Your task to perform on an android device: Open calendar and show me the third week of next month Image 0: 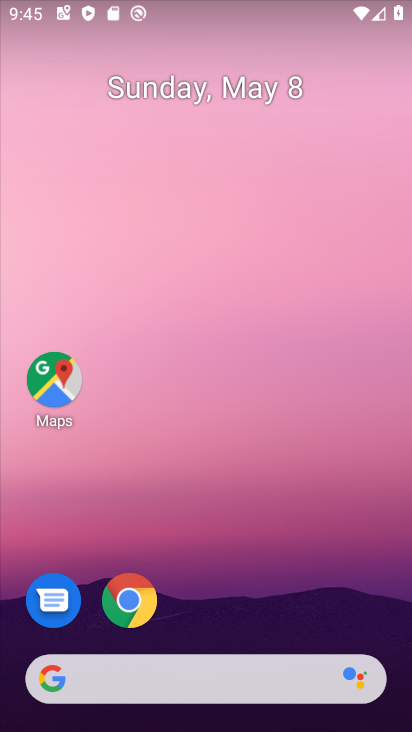
Step 0: drag from (143, 672) to (148, 135)
Your task to perform on an android device: Open calendar and show me the third week of next month Image 1: 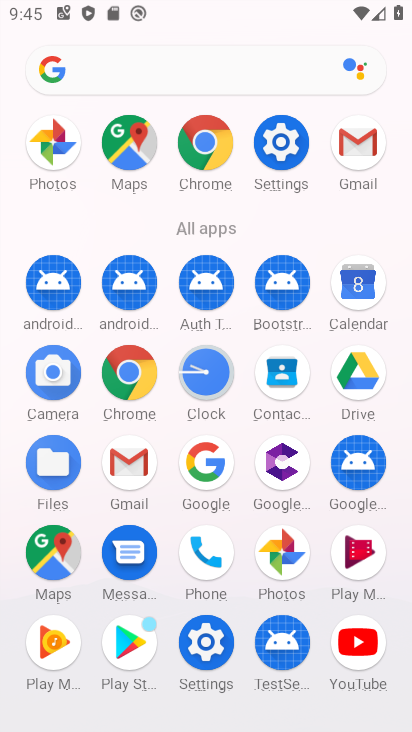
Step 1: click (367, 282)
Your task to perform on an android device: Open calendar and show me the third week of next month Image 2: 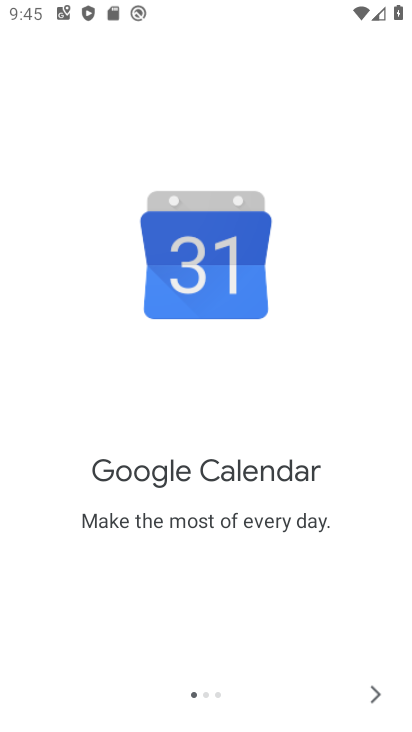
Step 2: click (375, 710)
Your task to perform on an android device: Open calendar and show me the third week of next month Image 3: 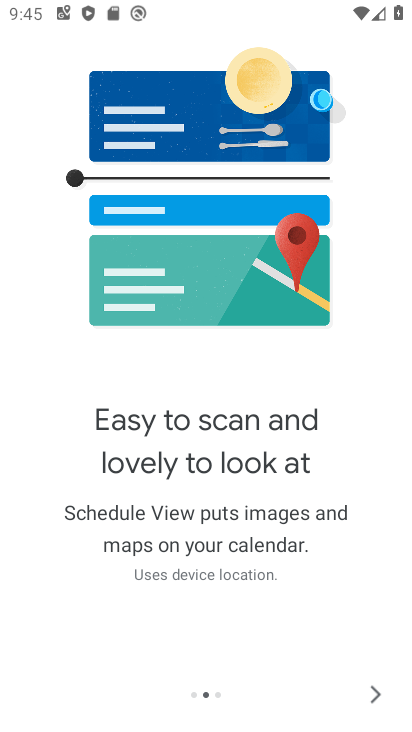
Step 3: click (370, 703)
Your task to perform on an android device: Open calendar and show me the third week of next month Image 4: 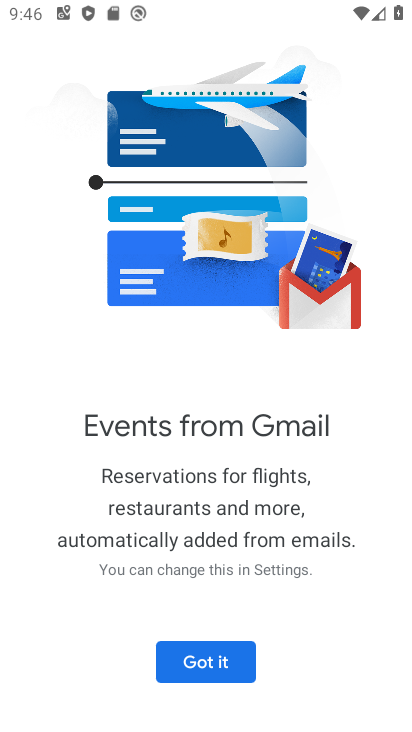
Step 4: click (169, 673)
Your task to perform on an android device: Open calendar and show me the third week of next month Image 5: 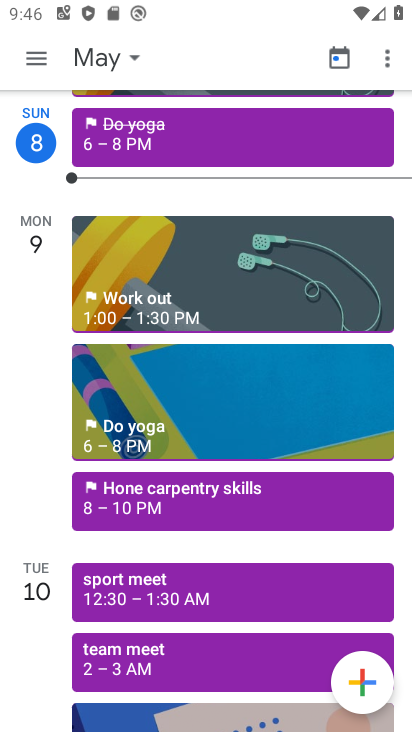
Step 5: click (41, 58)
Your task to perform on an android device: Open calendar and show me the third week of next month Image 6: 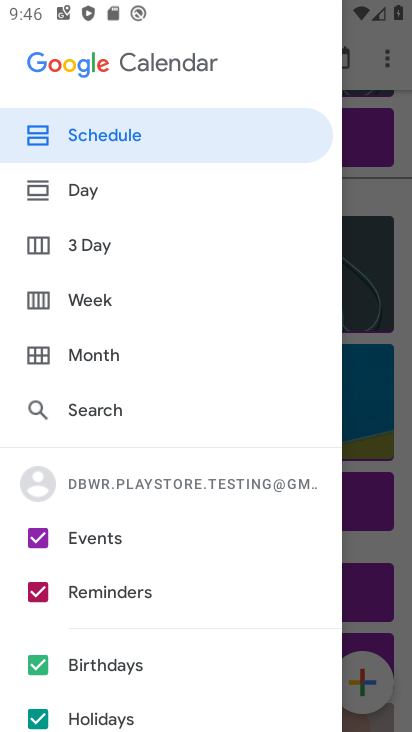
Step 6: click (93, 354)
Your task to perform on an android device: Open calendar and show me the third week of next month Image 7: 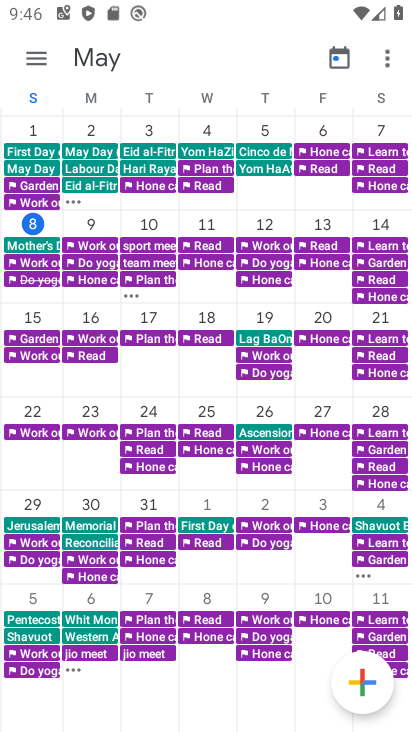
Step 7: task complete